Your task to perform on an android device: Open Google Maps Image 0: 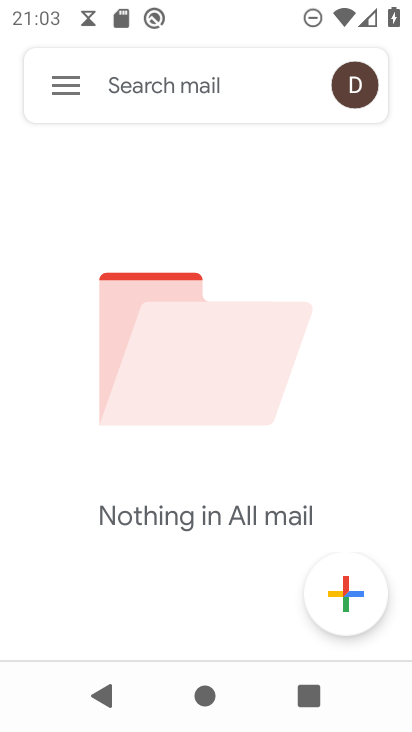
Step 0: press home button
Your task to perform on an android device: Open Google Maps Image 1: 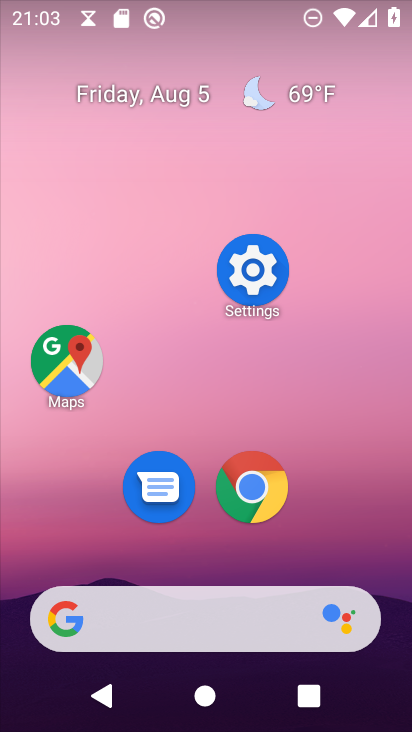
Step 1: click (70, 368)
Your task to perform on an android device: Open Google Maps Image 2: 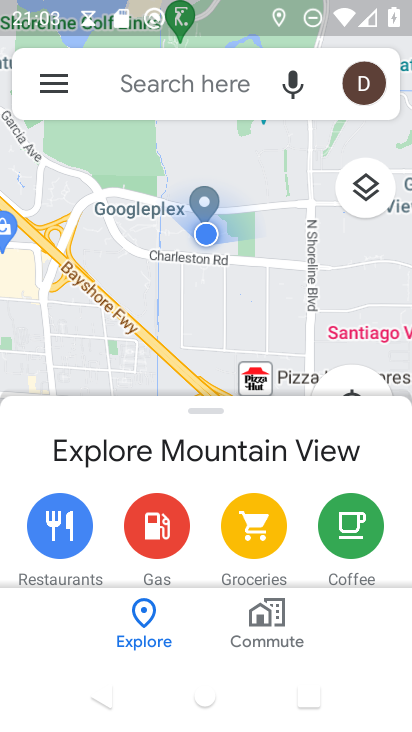
Step 2: task complete